Your task to perform on an android device: Search for Italian restaurants on Maps Image 0: 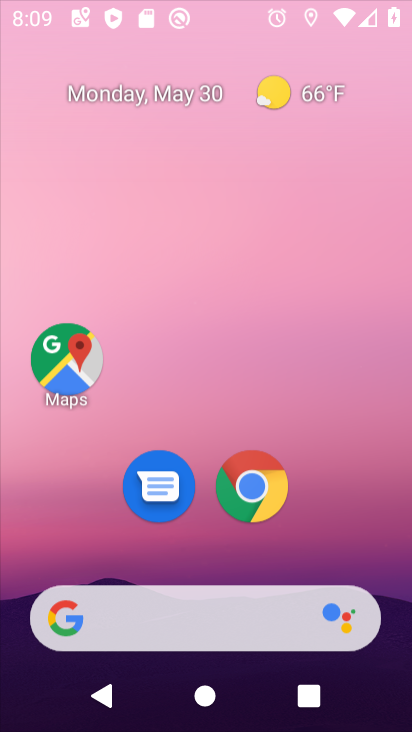
Step 0: press home button
Your task to perform on an android device: Search for Italian restaurants on Maps Image 1: 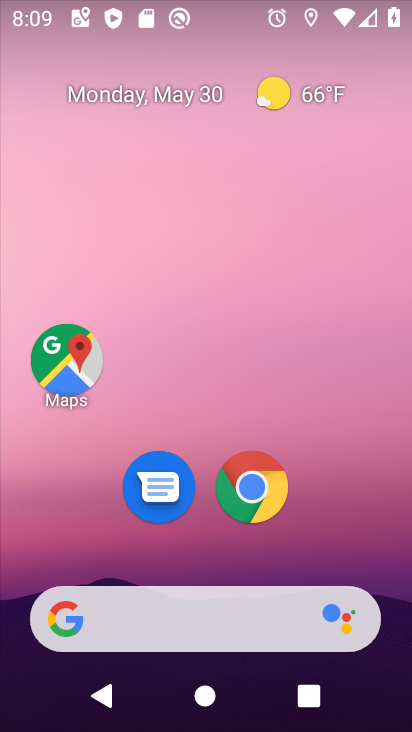
Step 1: drag from (334, 527) to (275, 67)
Your task to perform on an android device: Search for Italian restaurants on Maps Image 2: 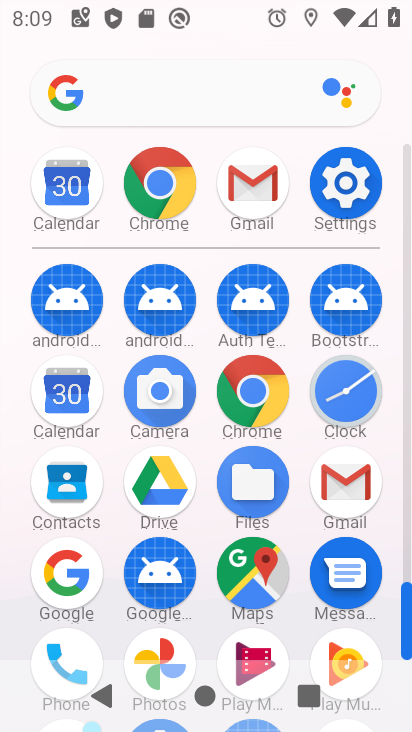
Step 2: click (257, 585)
Your task to perform on an android device: Search for Italian restaurants on Maps Image 3: 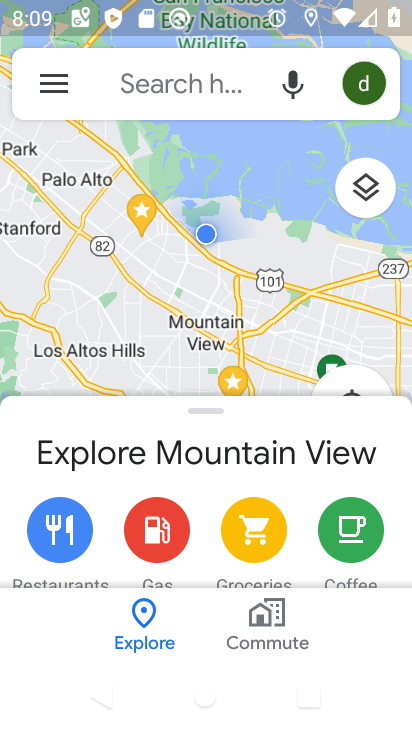
Step 3: click (264, 87)
Your task to perform on an android device: Search for Italian restaurants on Maps Image 4: 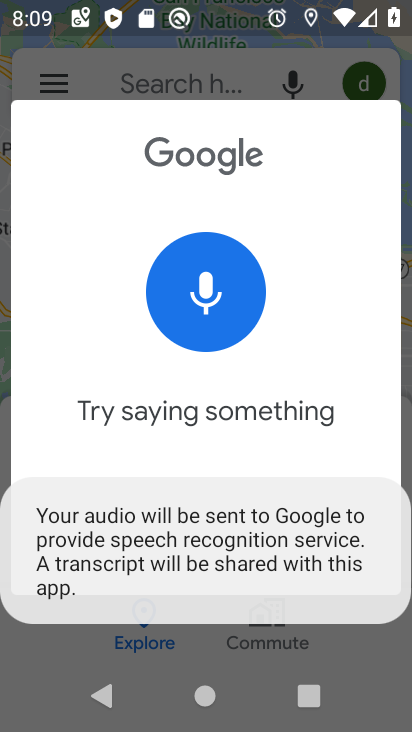
Step 4: click (208, 88)
Your task to perform on an android device: Search for Italian restaurants on Maps Image 5: 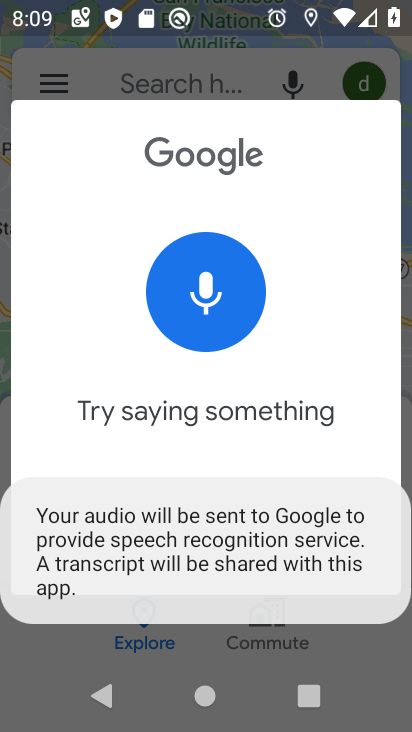
Step 5: click (219, 82)
Your task to perform on an android device: Search for Italian restaurants on Maps Image 6: 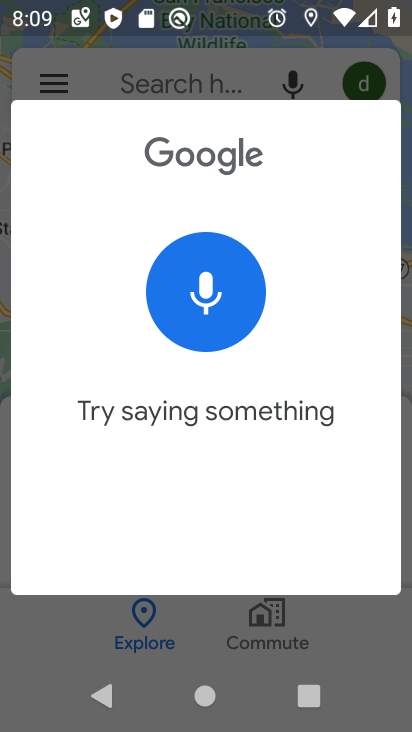
Step 6: click (66, 641)
Your task to perform on an android device: Search for Italian restaurants on Maps Image 7: 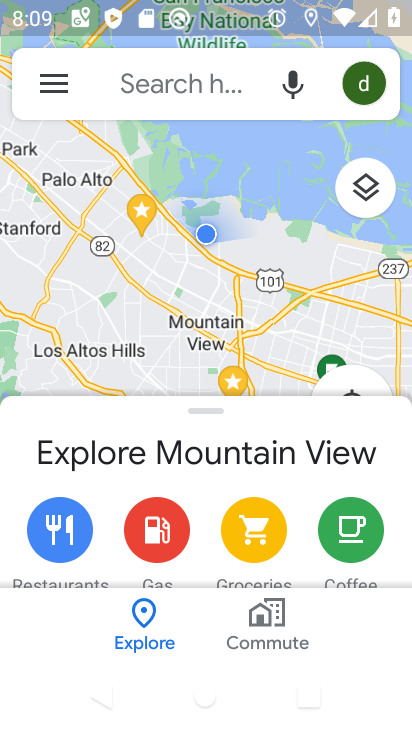
Step 7: click (178, 73)
Your task to perform on an android device: Search for Italian restaurants on Maps Image 8: 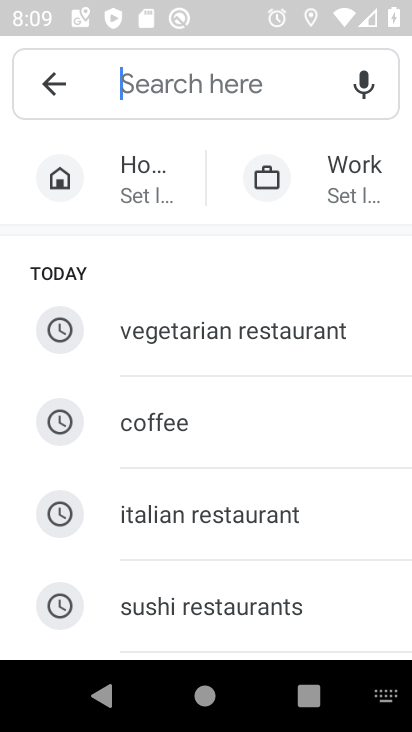
Step 8: click (207, 524)
Your task to perform on an android device: Search for Italian restaurants on Maps Image 9: 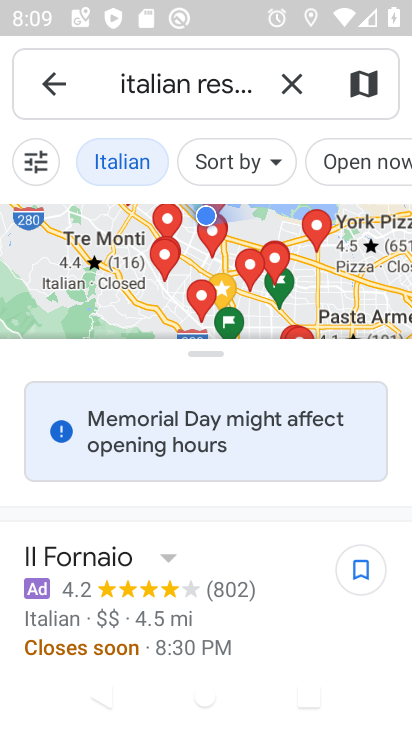
Step 9: task complete